Your task to perform on an android device: snooze an email in the gmail app Image 0: 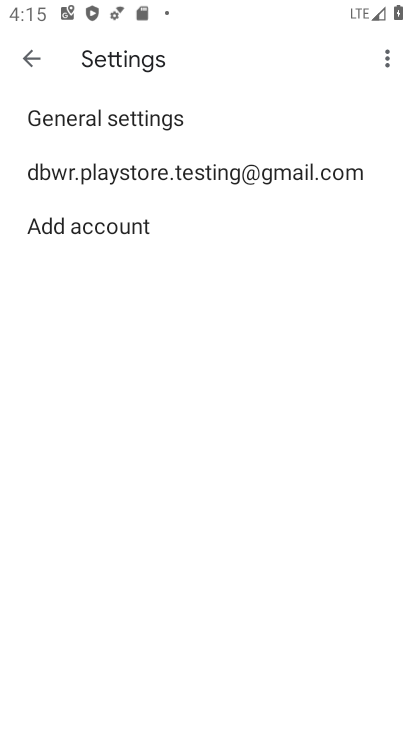
Step 0: press back button
Your task to perform on an android device: snooze an email in the gmail app Image 1: 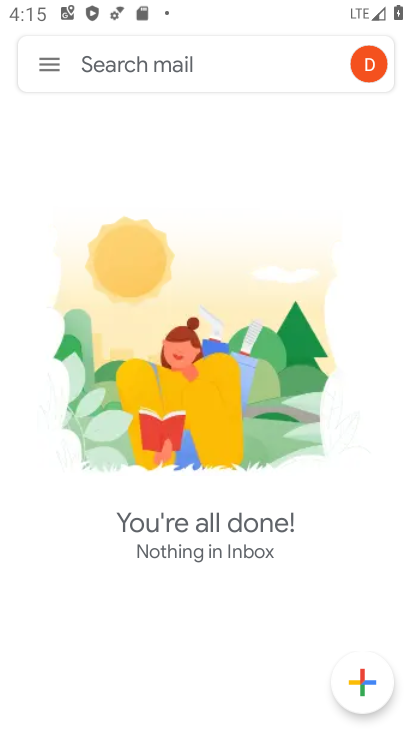
Step 1: press home button
Your task to perform on an android device: snooze an email in the gmail app Image 2: 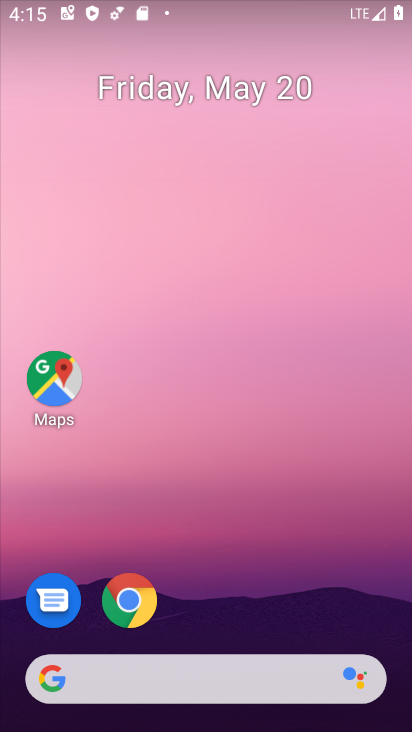
Step 2: drag from (261, 552) to (232, 0)
Your task to perform on an android device: snooze an email in the gmail app Image 3: 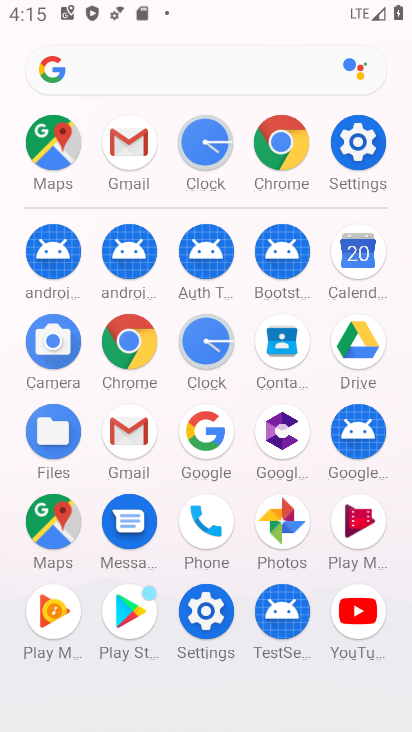
Step 3: click (130, 138)
Your task to perform on an android device: snooze an email in the gmail app Image 4: 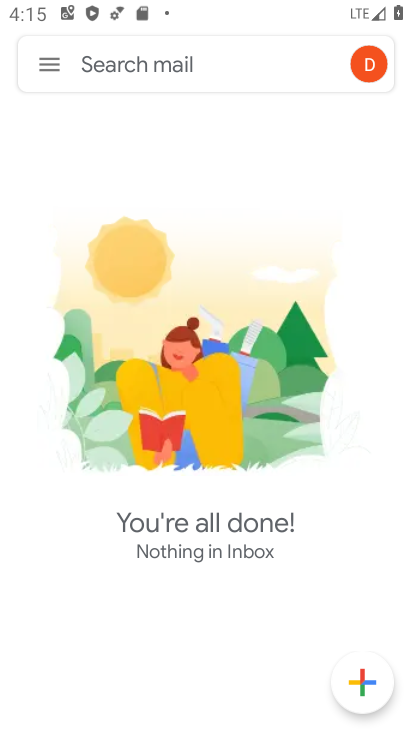
Step 4: click (43, 47)
Your task to perform on an android device: snooze an email in the gmail app Image 5: 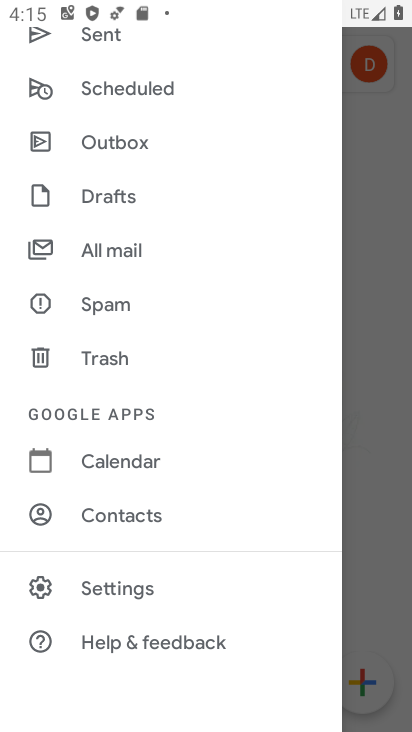
Step 5: drag from (210, 255) to (177, 644)
Your task to perform on an android device: snooze an email in the gmail app Image 6: 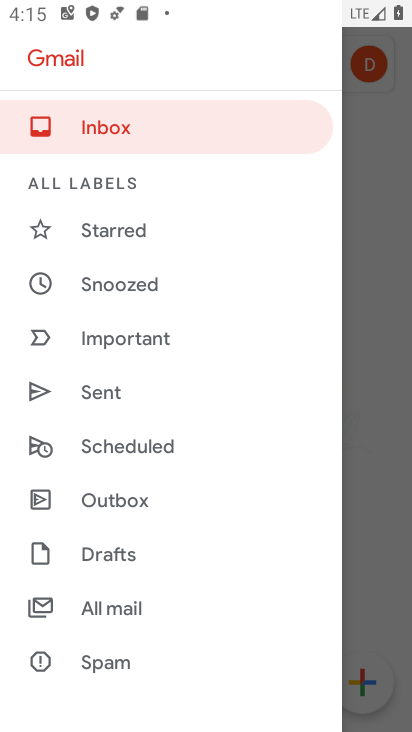
Step 6: click (140, 280)
Your task to perform on an android device: snooze an email in the gmail app Image 7: 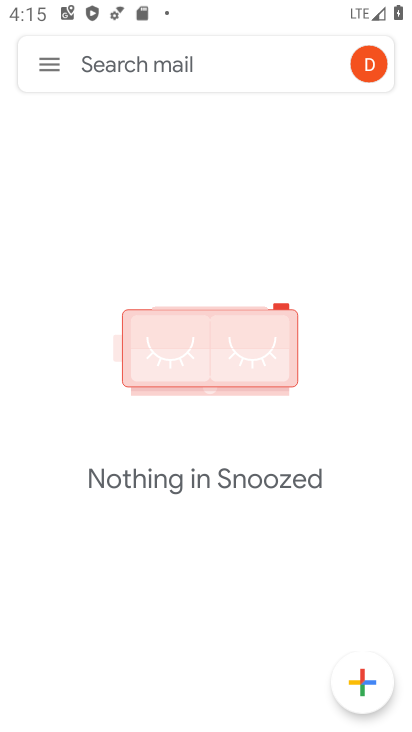
Step 7: click (38, 54)
Your task to perform on an android device: snooze an email in the gmail app Image 8: 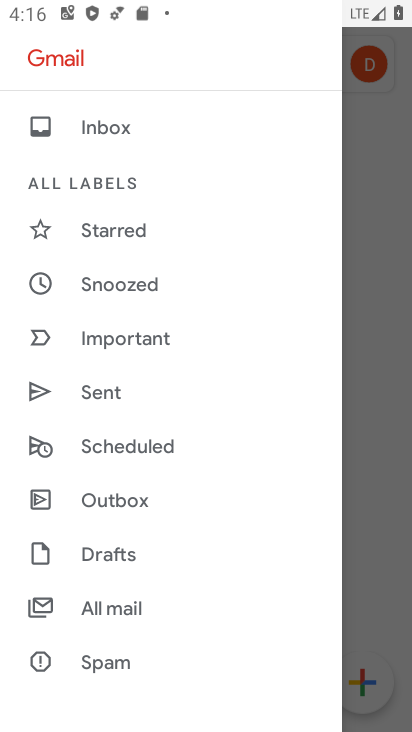
Step 8: click (142, 604)
Your task to perform on an android device: snooze an email in the gmail app Image 9: 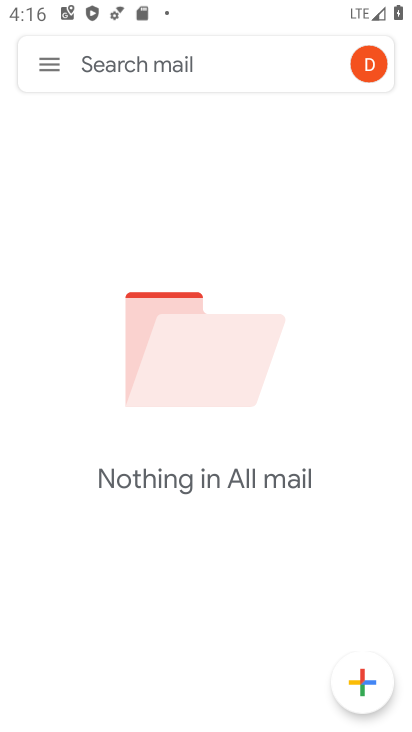
Step 9: task complete